Your task to perform on an android device: move a message to another label in the gmail app Image 0: 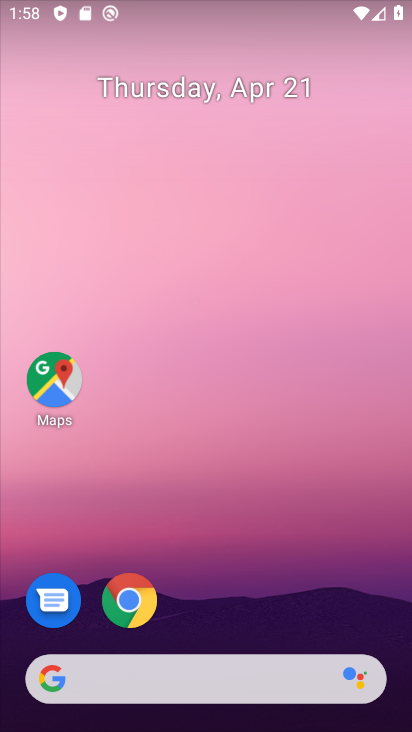
Step 0: drag from (266, 585) to (281, 128)
Your task to perform on an android device: move a message to another label in the gmail app Image 1: 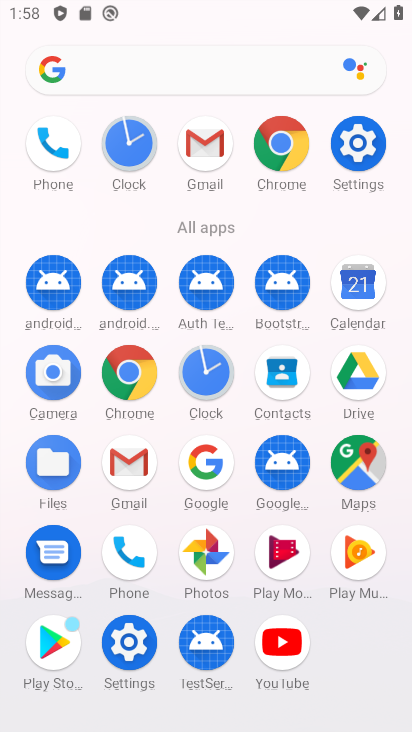
Step 1: click (122, 457)
Your task to perform on an android device: move a message to another label in the gmail app Image 2: 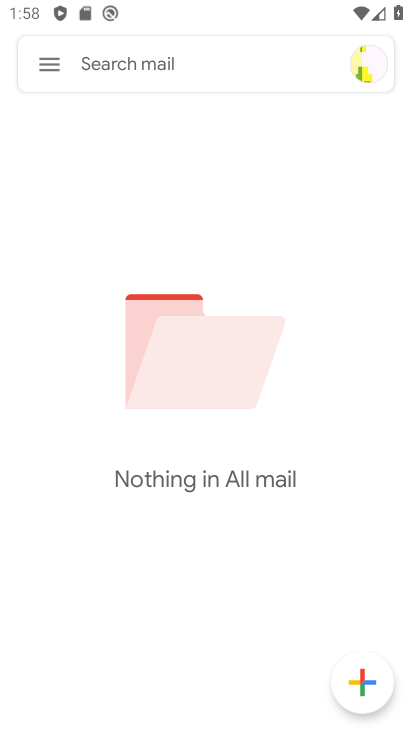
Step 2: task complete